Your task to perform on an android device: turn on translation in the chrome app Image 0: 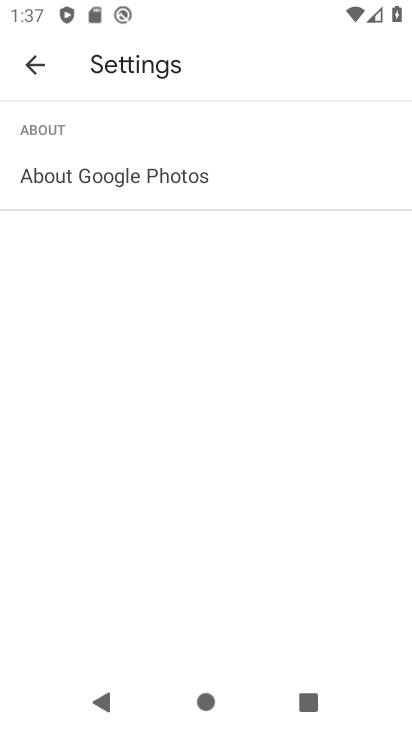
Step 0: press home button
Your task to perform on an android device: turn on translation in the chrome app Image 1: 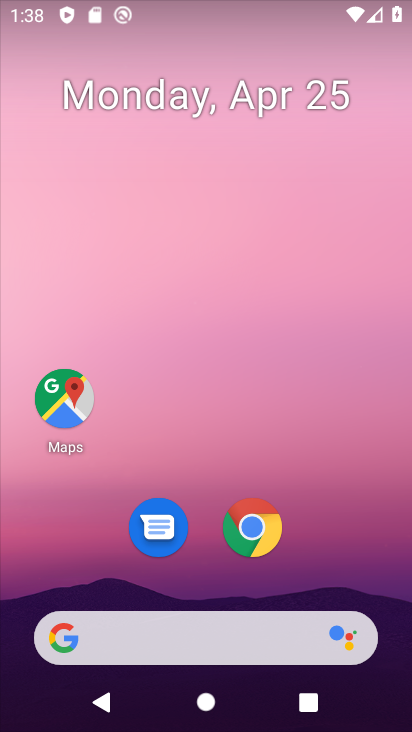
Step 1: drag from (390, 643) to (280, 8)
Your task to perform on an android device: turn on translation in the chrome app Image 2: 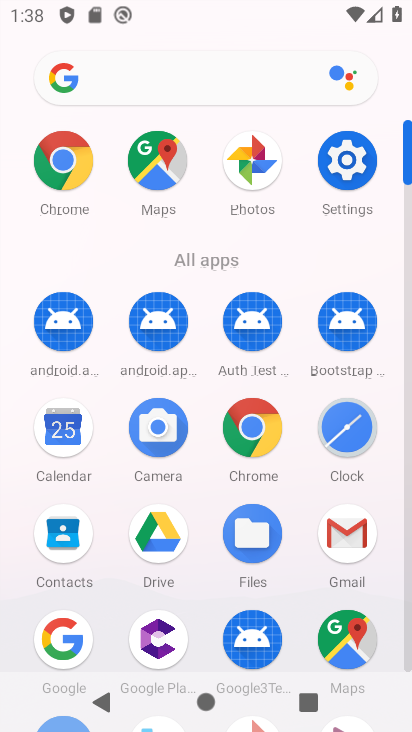
Step 2: click (258, 454)
Your task to perform on an android device: turn on translation in the chrome app Image 3: 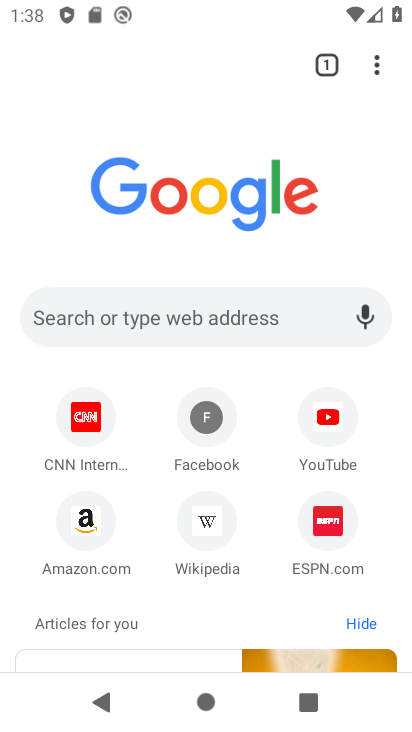
Step 3: click (375, 73)
Your task to perform on an android device: turn on translation in the chrome app Image 4: 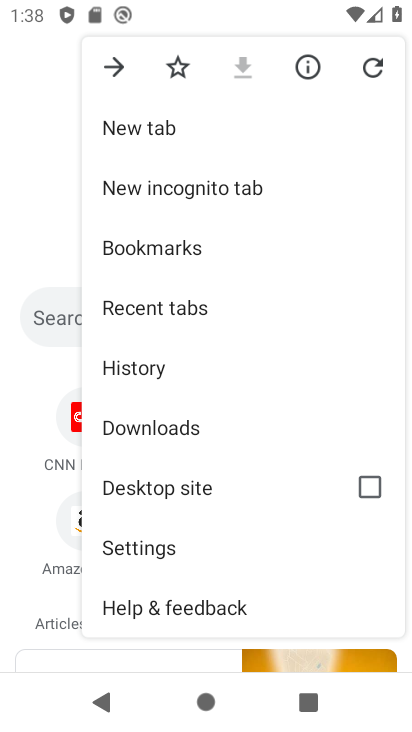
Step 4: click (185, 545)
Your task to perform on an android device: turn on translation in the chrome app Image 5: 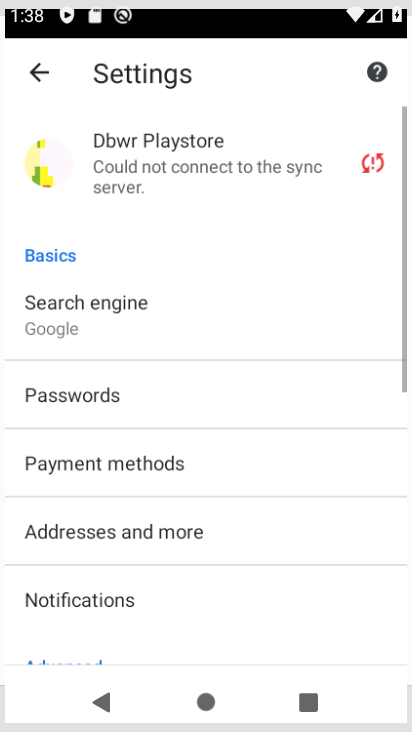
Step 5: drag from (152, 574) to (162, 132)
Your task to perform on an android device: turn on translation in the chrome app Image 6: 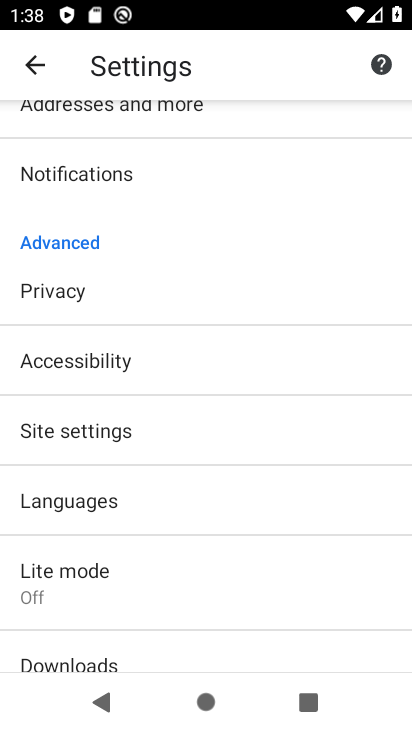
Step 6: click (154, 497)
Your task to perform on an android device: turn on translation in the chrome app Image 7: 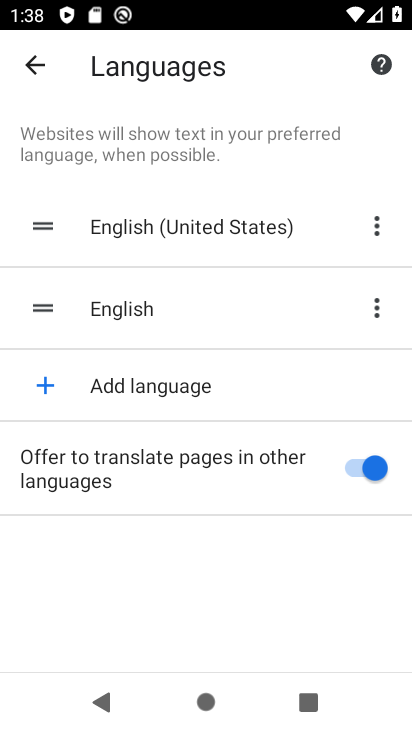
Step 7: task complete